Your task to perform on an android device: Show me the alarms in the clock app Image 0: 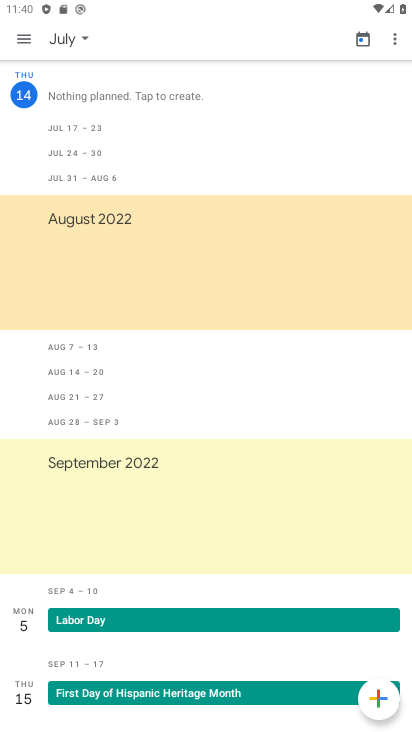
Step 0: press home button
Your task to perform on an android device: Show me the alarms in the clock app Image 1: 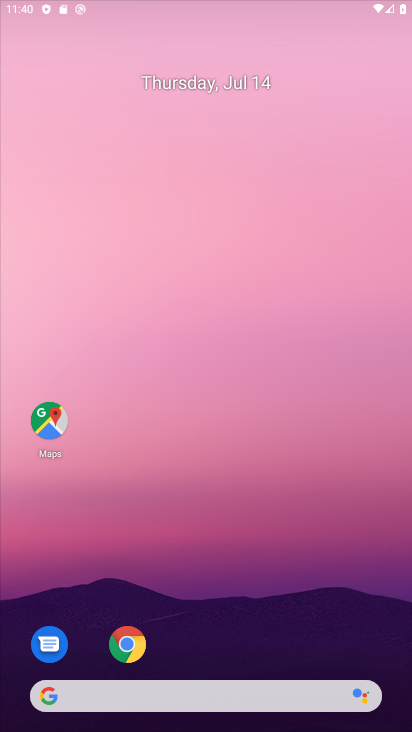
Step 1: drag from (371, 643) to (309, 55)
Your task to perform on an android device: Show me the alarms in the clock app Image 2: 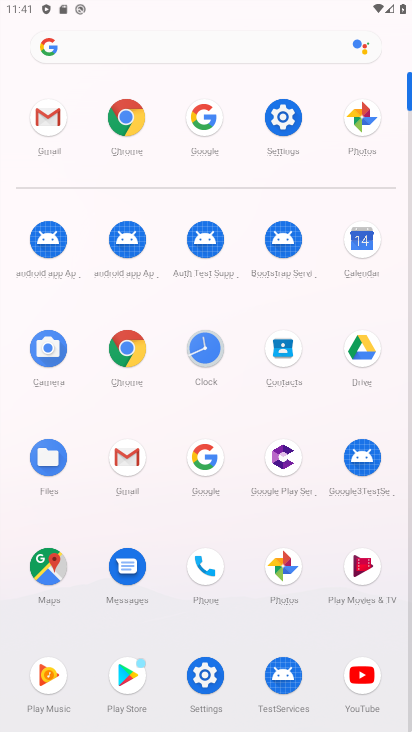
Step 2: click (194, 341)
Your task to perform on an android device: Show me the alarms in the clock app Image 3: 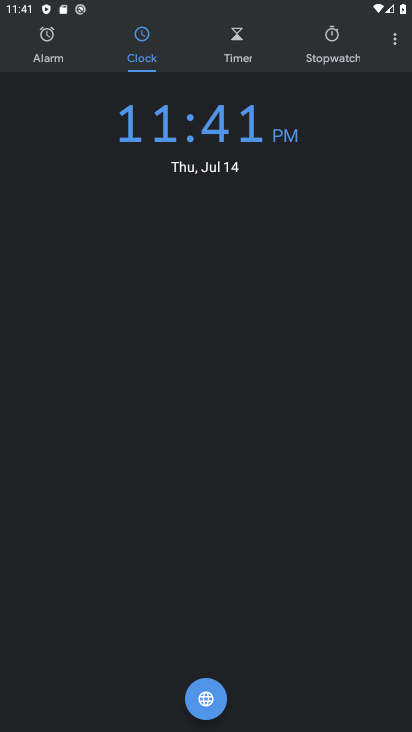
Step 3: click (34, 50)
Your task to perform on an android device: Show me the alarms in the clock app Image 4: 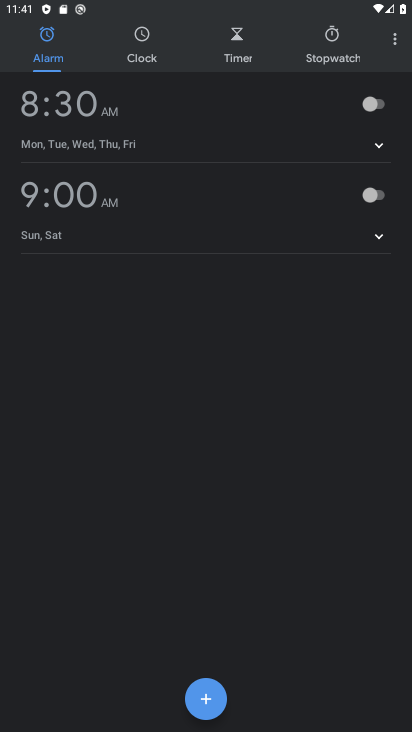
Step 4: task complete